Your task to perform on an android device: uninstall "Microsoft Excel" Image 0: 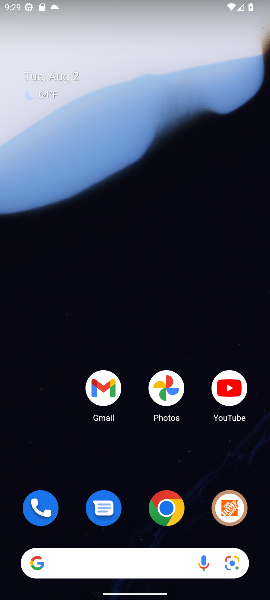
Step 0: drag from (132, 534) to (142, 171)
Your task to perform on an android device: uninstall "Microsoft Excel" Image 1: 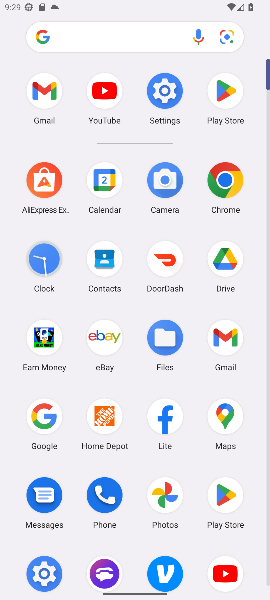
Step 1: click (223, 109)
Your task to perform on an android device: uninstall "Microsoft Excel" Image 2: 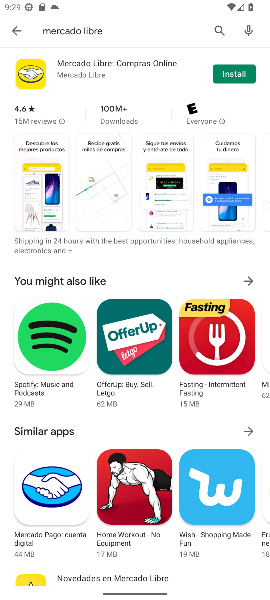
Step 2: click (17, 27)
Your task to perform on an android device: uninstall "Microsoft Excel" Image 3: 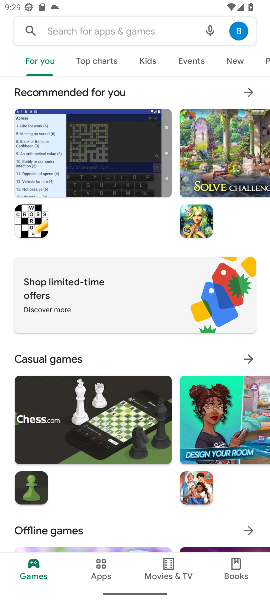
Step 3: click (111, 23)
Your task to perform on an android device: uninstall "Microsoft Excel" Image 4: 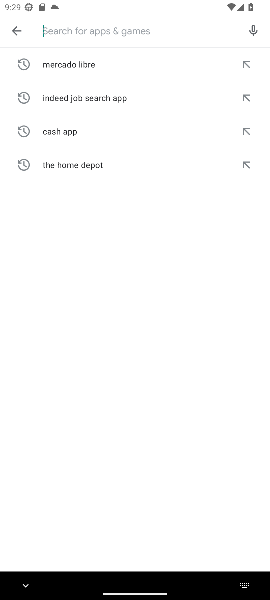
Step 4: type "Microsoft Excel"
Your task to perform on an android device: uninstall "Microsoft Excel" Image 5: 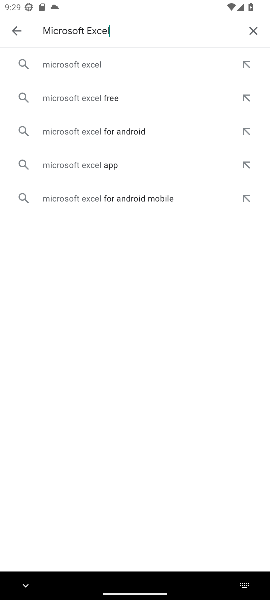
Step 5: click (94, 59)
Your task to perform on an android device: uninstall "Microsoft Excel" Image 6: 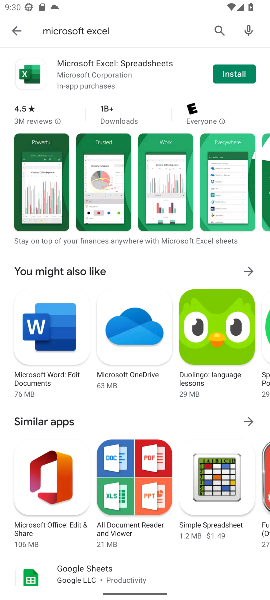
Step 6: task complete